Your task to perform on an android device: delete browsing data in the chrome app Image 0: 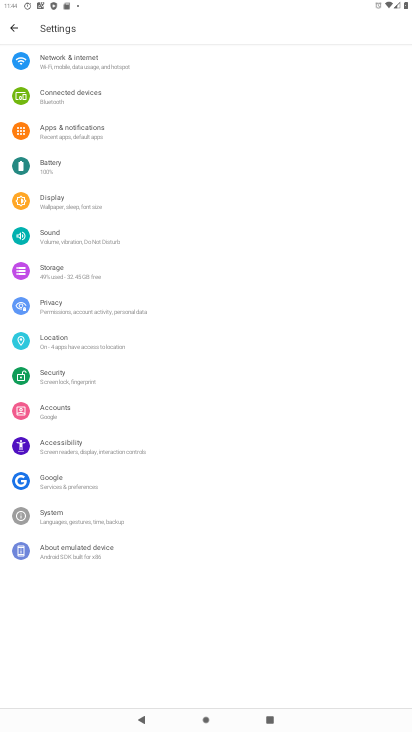
Step 0: press home button
Your task to perform on an android device: delete browsing data in the chrome app Image 1: 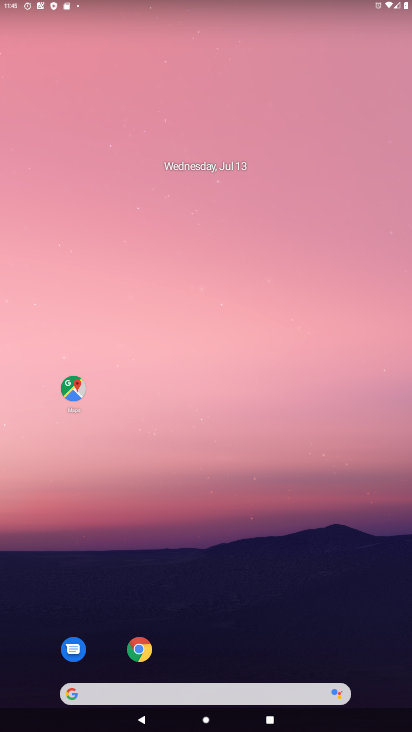
Step 1: click (141, 650)
Your task to perform on an android device: delete browsing data in the chrome app Image 2: 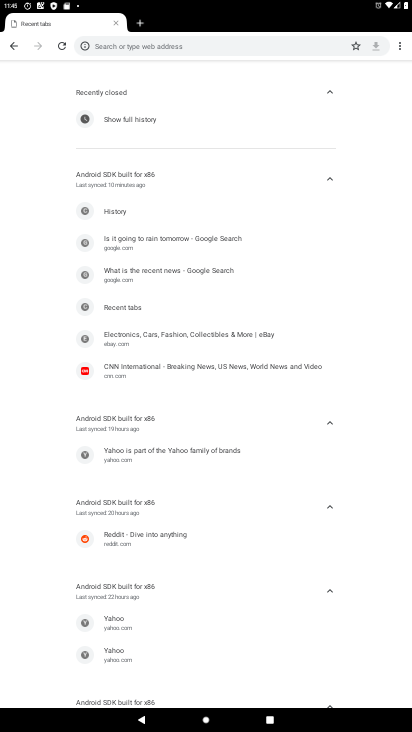
Step 2: click (399, 44)
Your task to perform on an android device: delete browsing data in the chrome app Image 3: 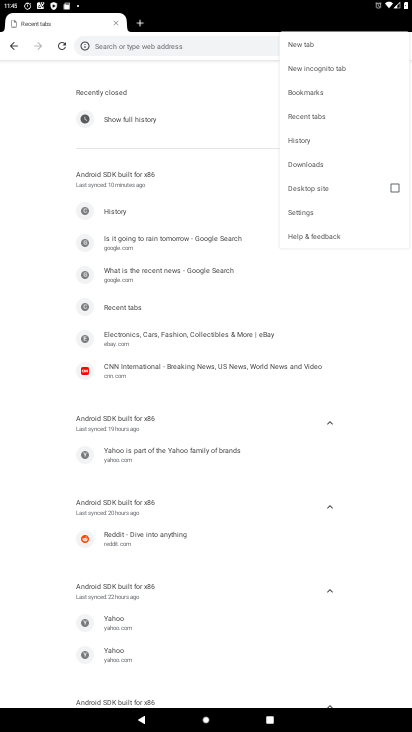
Step 3: click (308, 211)
Your task to perform on an android device: delete browsing data in the chrome app Image 4: 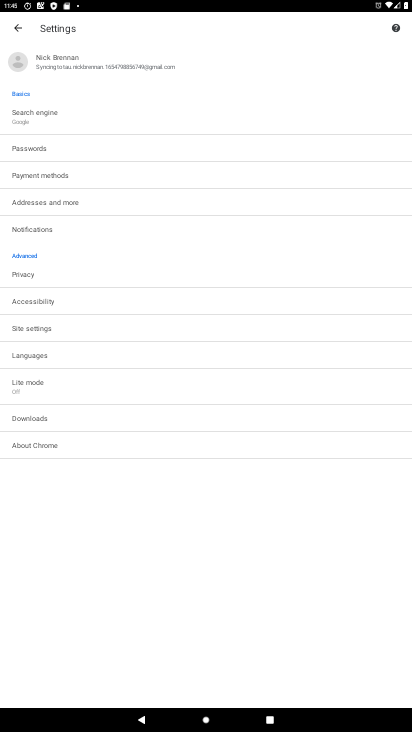
Step 4: click (19, 275)
Your task to perform on an android device: delete browsing data in the chrome app Image 5: 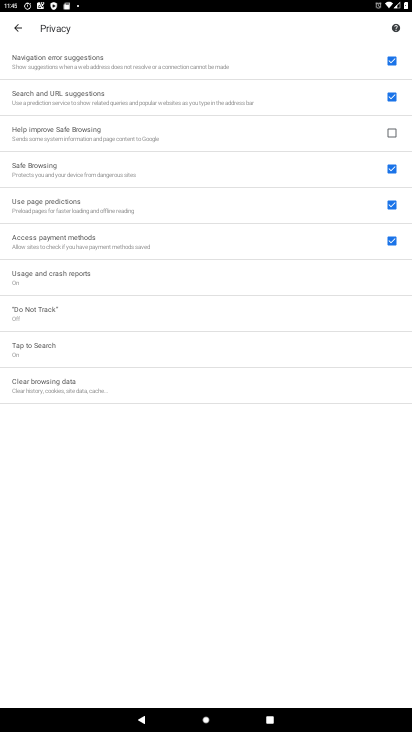
Step 5: click (41, 386)
Your task to perform on an android device: delete browsing data in the chrome app Image 6: 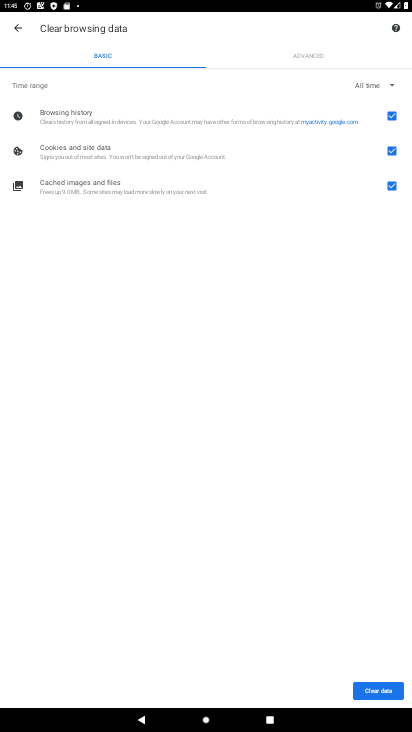
Step 6: click (374, 691)
Your task to perform on an android device: delete browsing data in the chrome app Image 7: 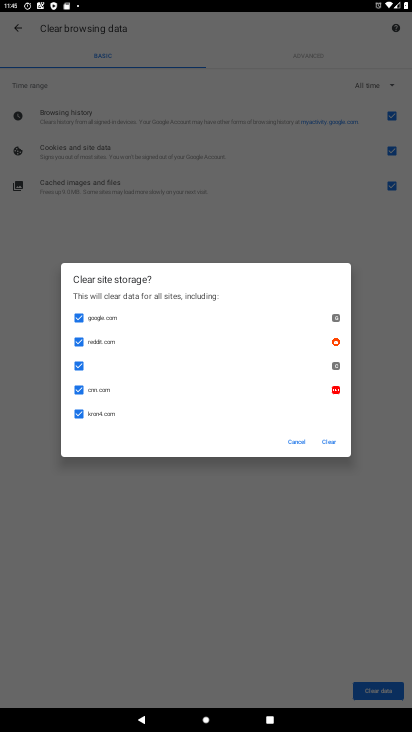
Step 7: click (327, 442)
Your task to perform on an android device: delete browsing data in the chrome app Image 8: 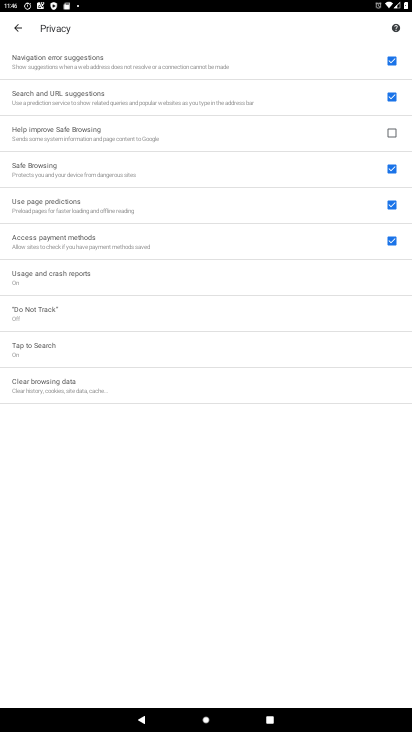
Step 8: task complete